Your task to perform on an android device: Is it going to rain today? Image 0: 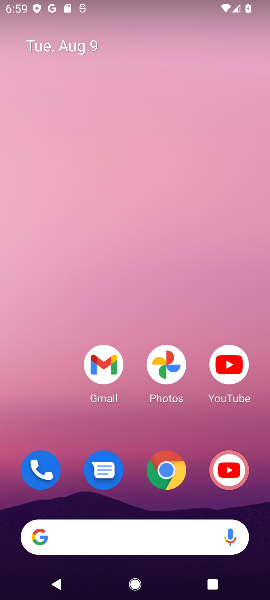
Step 0: click (113, 535)
Your task to perform on an android device: Is it going to rain today? Image 1: 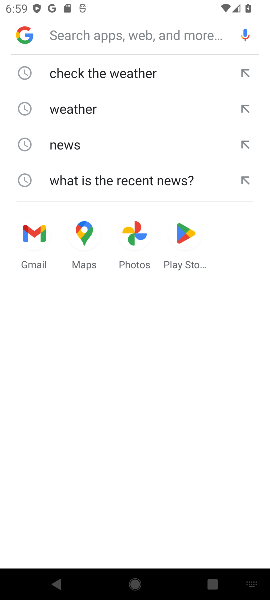
Step 1: type "Is it going to rain today?"
Your task to perform on an android device: Is it going to rain today? Image 2: 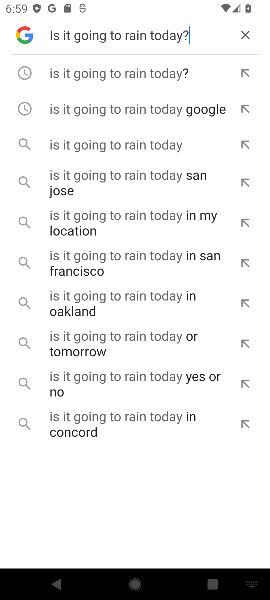
Step 2: type ""
Your task to perform on an android device: Is it going to rain today? Image 3: 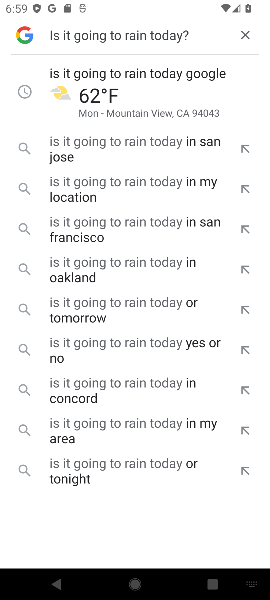
Step 3: press enter
Your task to perform on an android device: Is it going to rain today? Image 4: 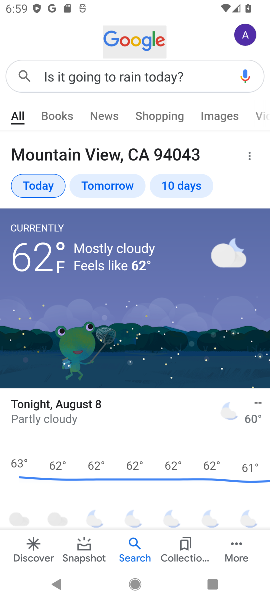
Step 4: task complete